Your task to perform on an android device: Check the news Image 0: 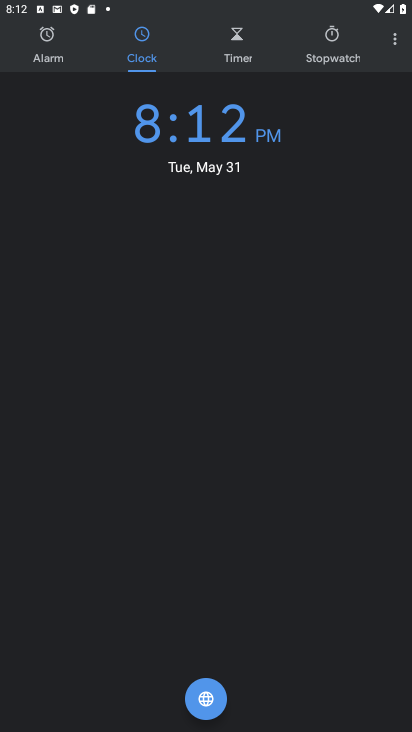
Step 0: press home button
Your task to perform on an android device: Check the news Image 1: 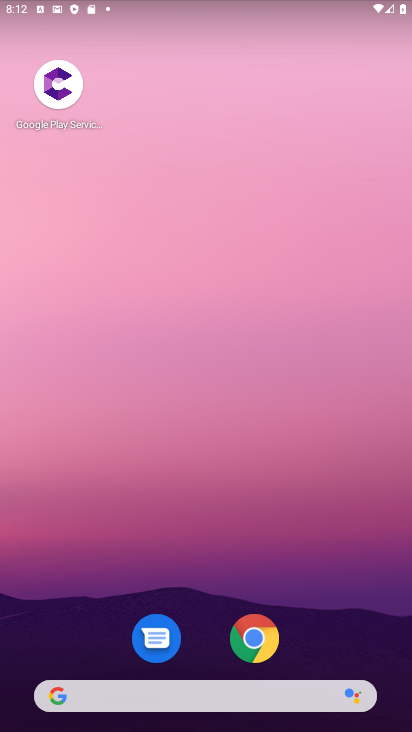
Step 1: click (240, 705)
Your task to perform on an android device: Check the news Image 2: 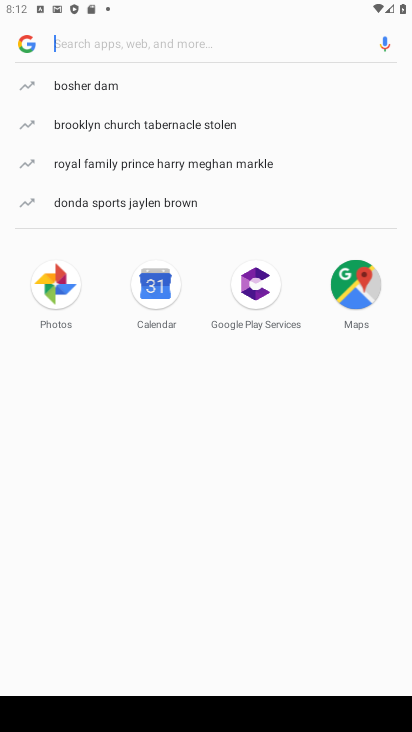
Step 2: type "news"
Your task to perform on an android device: Check the news Image 3: 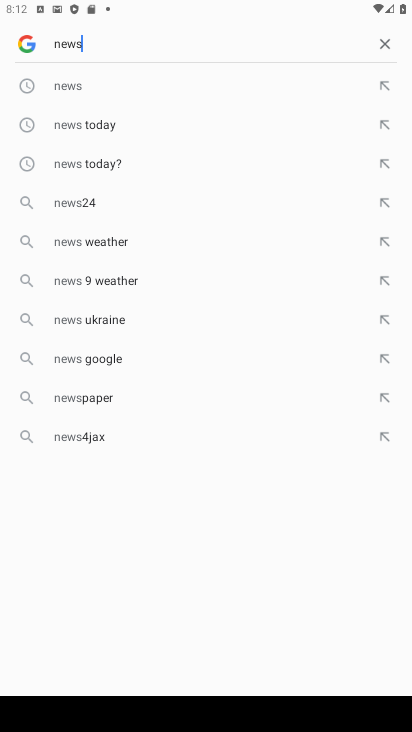
Step 3: click (90, 99)
Your task to perform on an android device: Check the news Image 4: 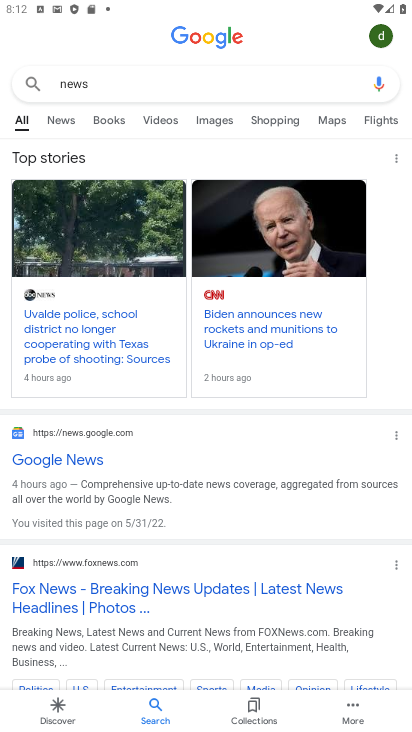
Step 4: task complete